Your task to perform on an android device: turn on sleep mode Image 0: 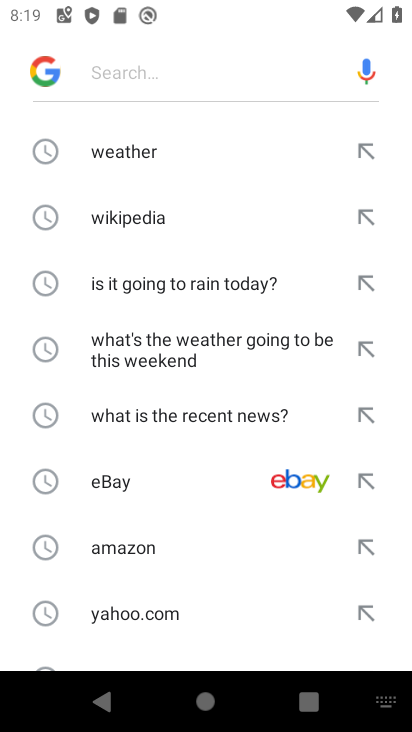
Step 0: press home button
Your task to perform on an android device: turn on sleep mode Image 1: 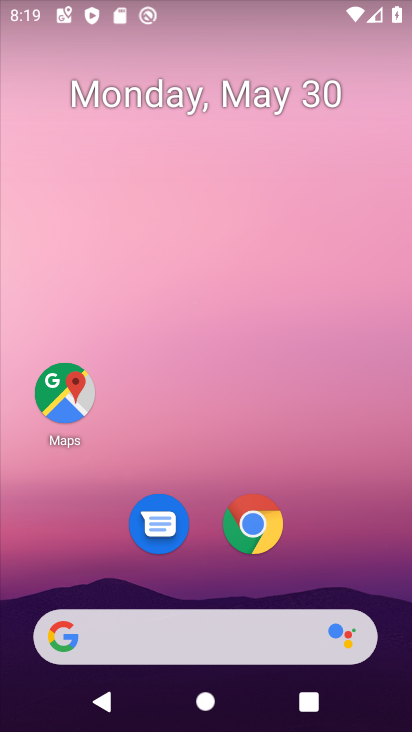
Step 1: drag from (243, 428) to (293, 3)
Your task to perform on an android device: turn on sleep mode Image 2: 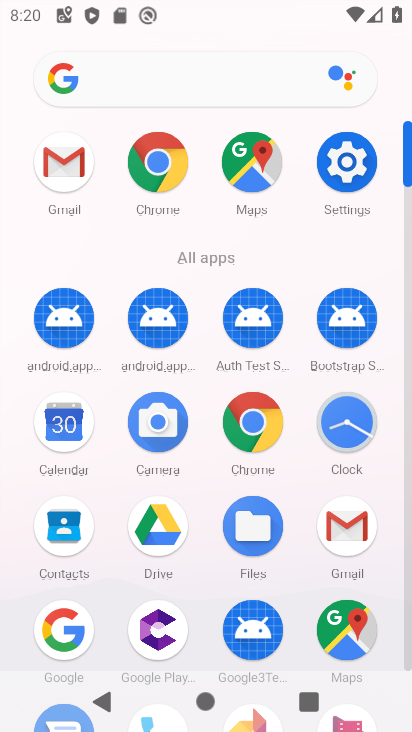
Step 2: click (340, 151)
Your task to perform on an android device: turn on sleep mode Image 3: 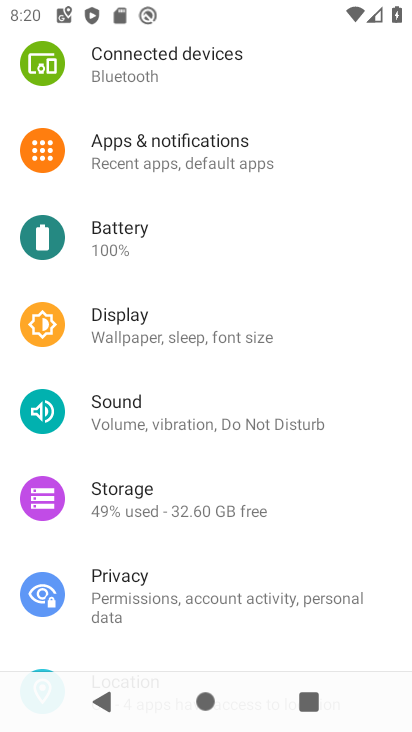
Step 3: click (204, 316)
Your task to perform on an android device: turn on sleep mode Image 4: 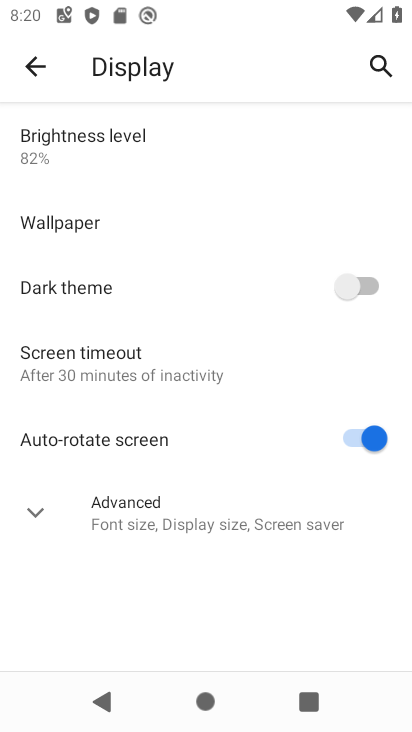
Step 4: click (39, 508)
Your task to perform on an android device: turn on sleep mode Image 5: 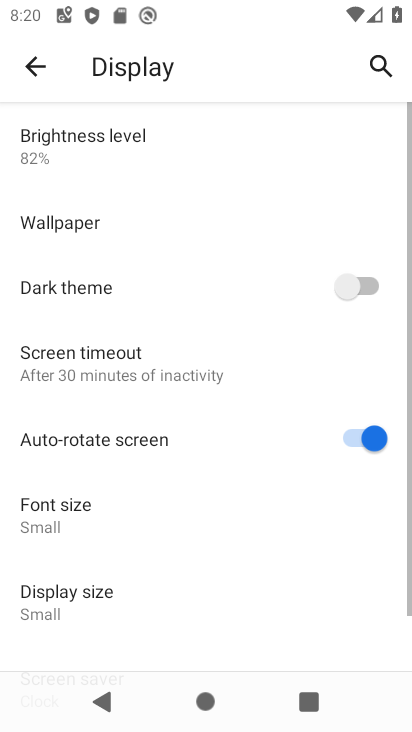
Step 5: task complete